Your task to perform on an android device: Go to accessibility settings Image 0: 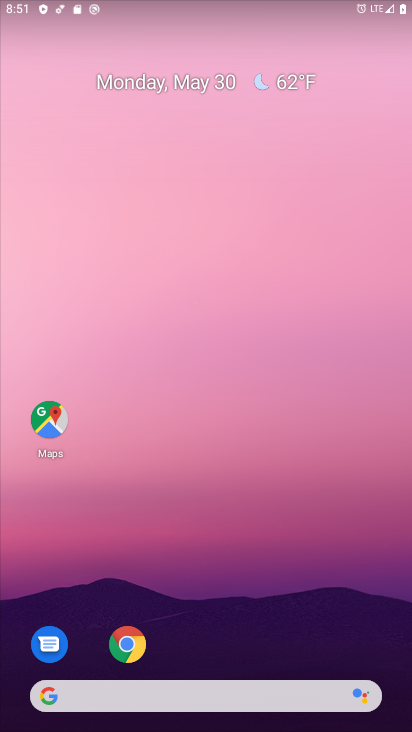
Step 0: drag from (368, 650) to (303, 188)
Your task to perform on an android device: Go to accessibility settings Image 1: 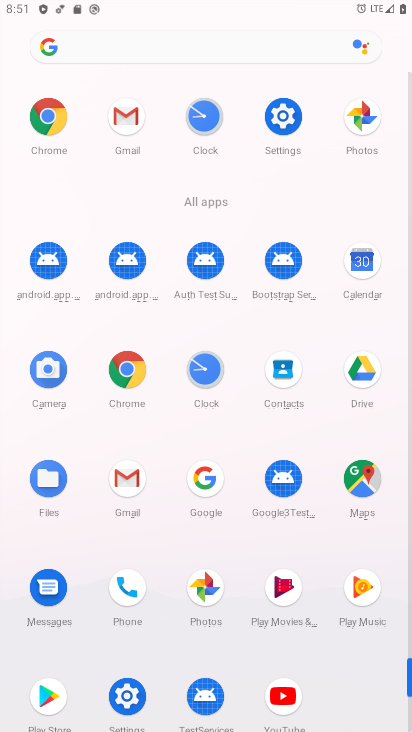
Step 1: click (411, 645)
Your task to perform on an android device: Go to accessibility settings Image 2: 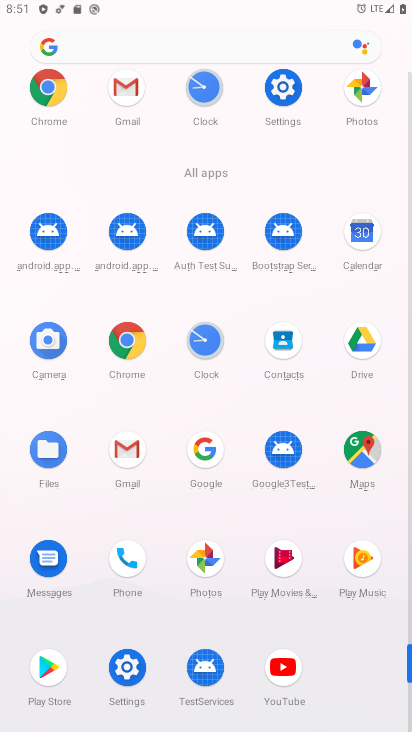
Step 2: click (126, 671)
Your task to perform on an android device: Go to accessibility settings Image 3: 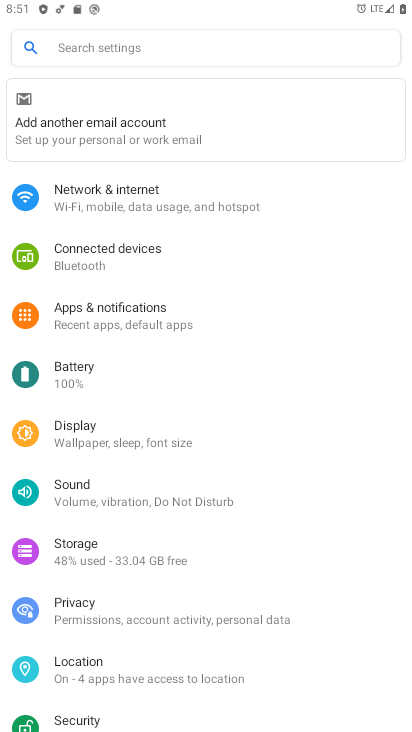
Step 3: drag from (215, 614) to (198, 174)
Your task to perform on an android device: Go to accessibility settings Image 4: 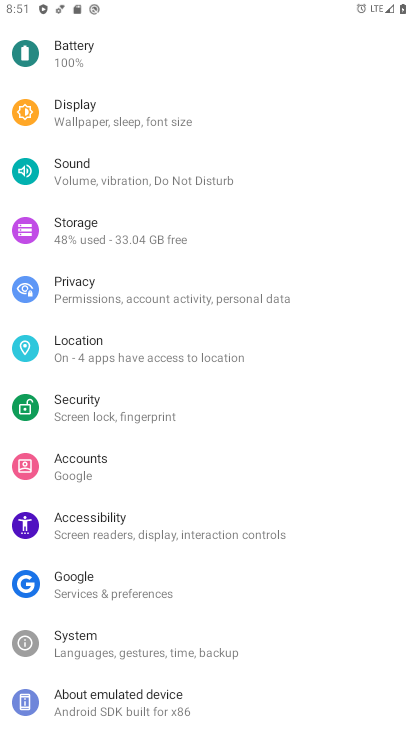
Step 4: click (91, 510)
Your task to perform on an android device: Go to accessibility settings Image 5: 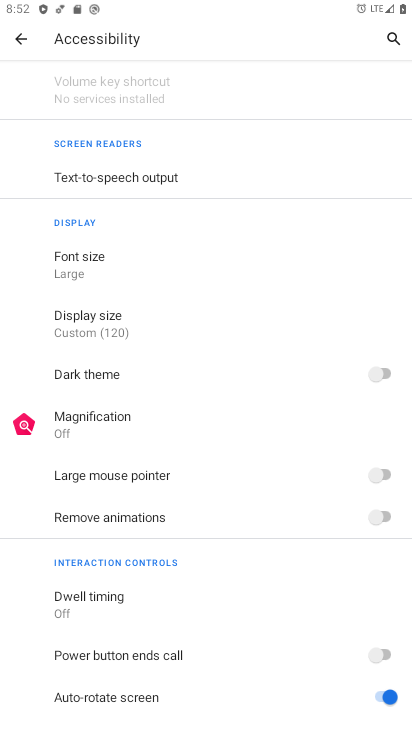
Step 5: task complete